Your task to perform on an android device: Open Chrome and go to the settings page Image 0: 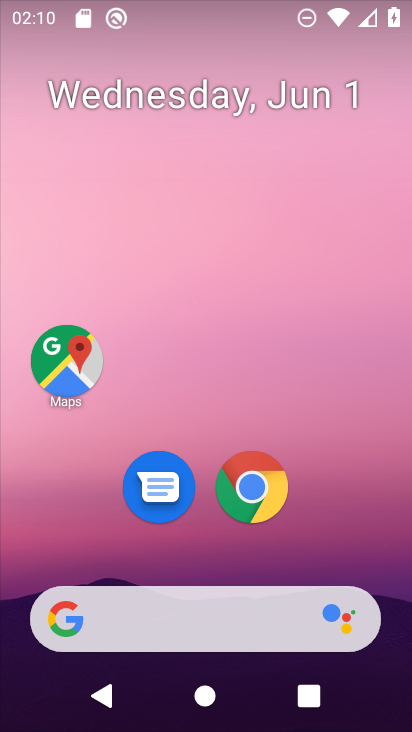
Step 0: click (261, 478)
Your task to perform on an android device: Open Chrome and go to the settings page Image 1: 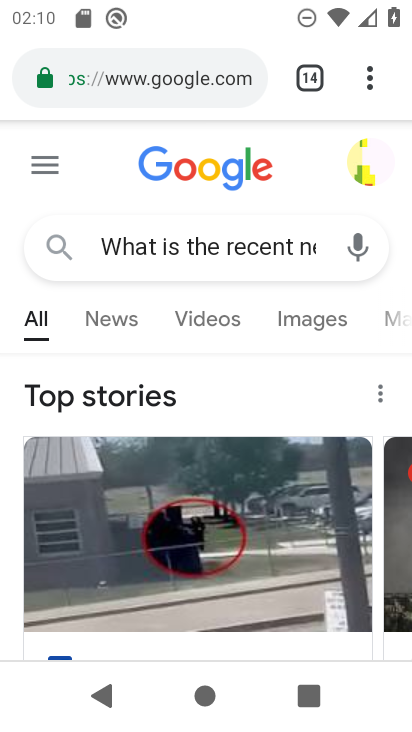
Step 1: click (378, 69)
Your task to perform on an android device: Open Chrome and go to the settings page Image 2: 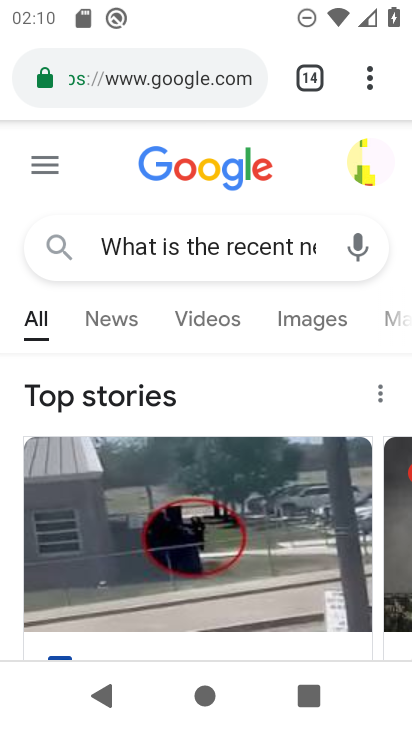
Step 2: click (383, 66)
Your task to perform on an android device: Open Chrome and go to the settings page Image 3: 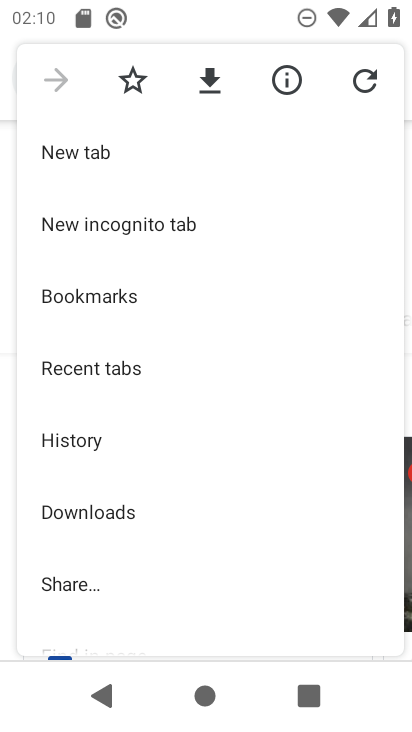
Step 3: drag from (174, 517) to (218, 203)
Your task to perform on an android device: Open Chrome and go to the settings page Image 4: 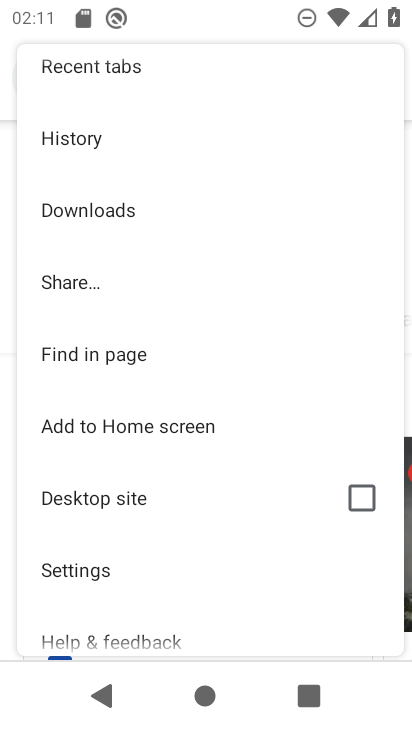
Step 4: click (99, 549)
Your task to perform on an android device: Open Chrome and go to the settings page Image 5: 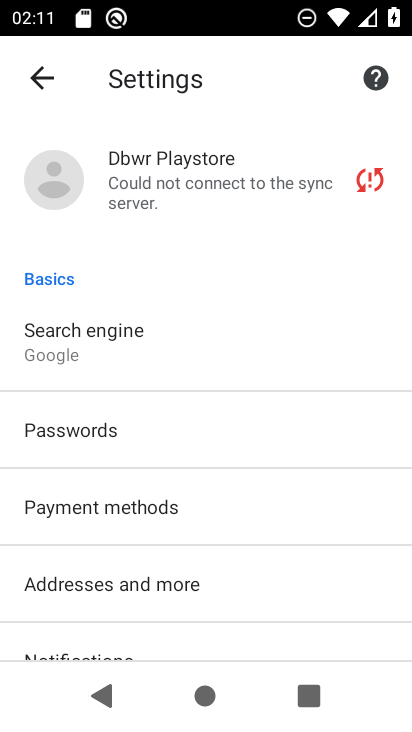
Step 5: task complete